Your task to perform on an android device: see tabs open on other devices in the chrome app Image 0: 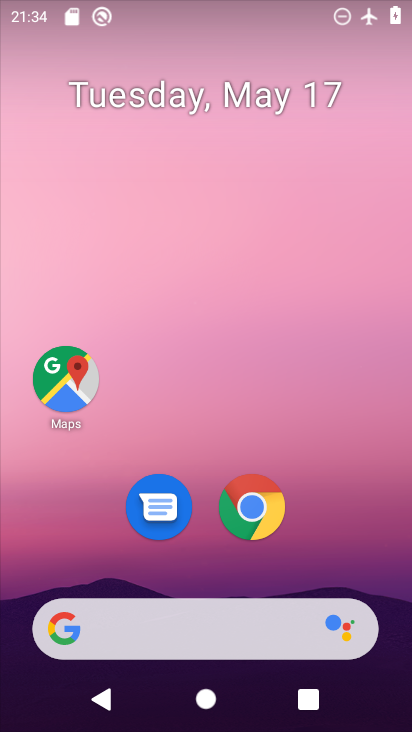
Step 0: click (257, 511)
Your task to perform on an android device: see tabs open on other devices in the chrome app Image 1: 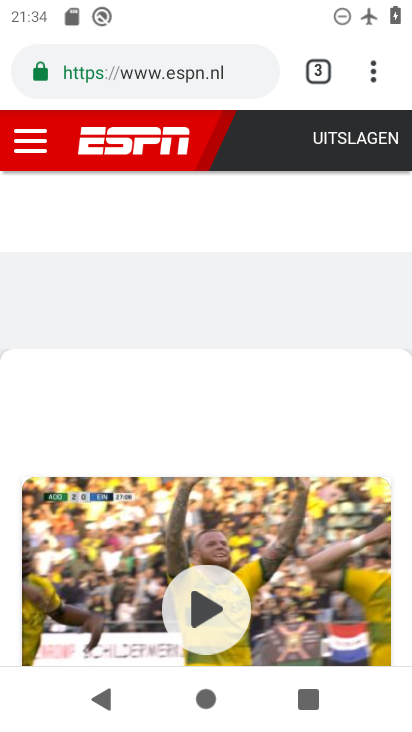
Step 1: click (377, 73)
Your task to perform on an android device: see tabs open on other devices in the chrome app Image 2: 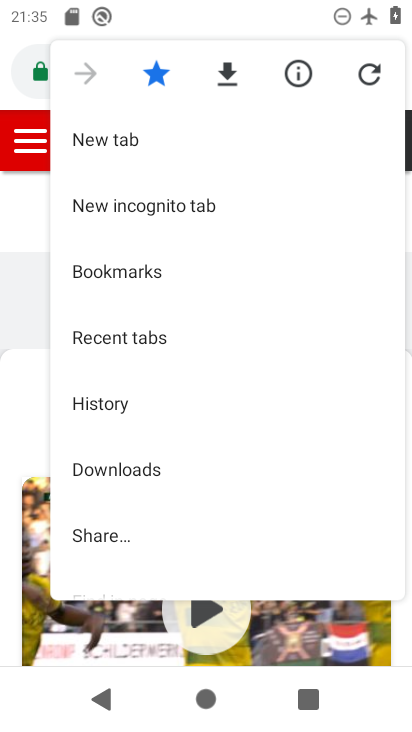
Step 2: click (121, 328)
Your task to perform on an android device: see tabs open on other devices in the chrome app Image 3: 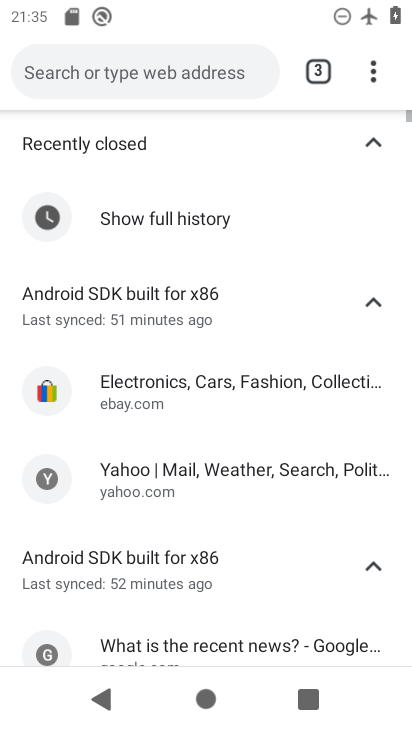
Step 3: task complete